Your task to perform on an android device: turn off location Image 0: 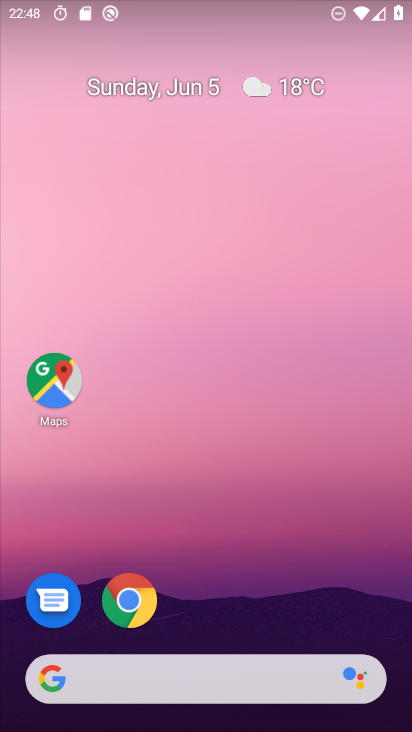
Step 0: drag from (274, 558) to (237, 112)
Your task to perform on an android device: turn off location Image 1: 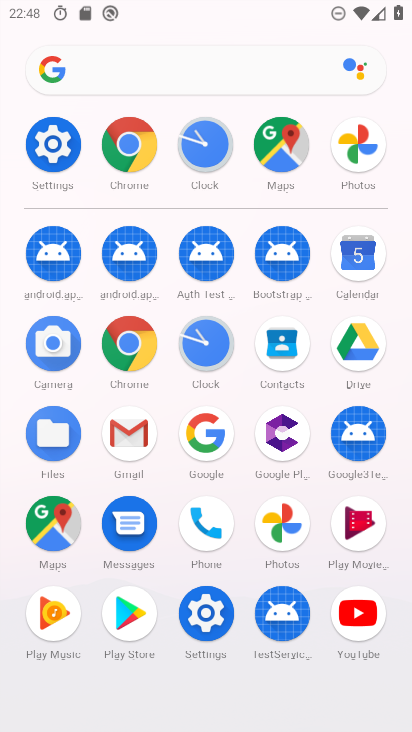
Step 1: click (50, 146)
Your task to perform on an android device: turn off location Image 2: 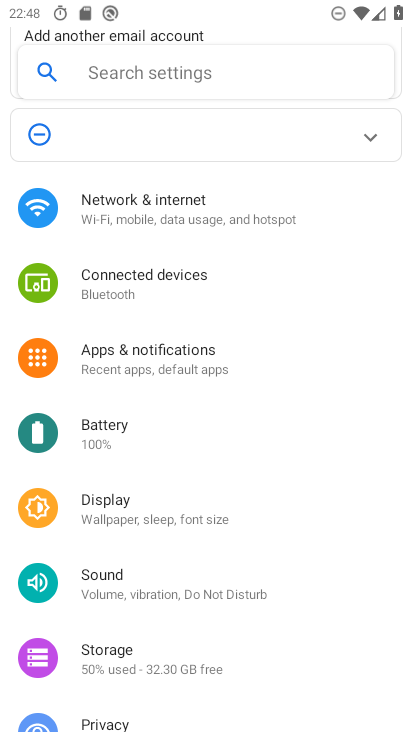
Step 2: drag from (210, 604) to (270, 148)
Your task to perform on an android device: turn off location Image 3: 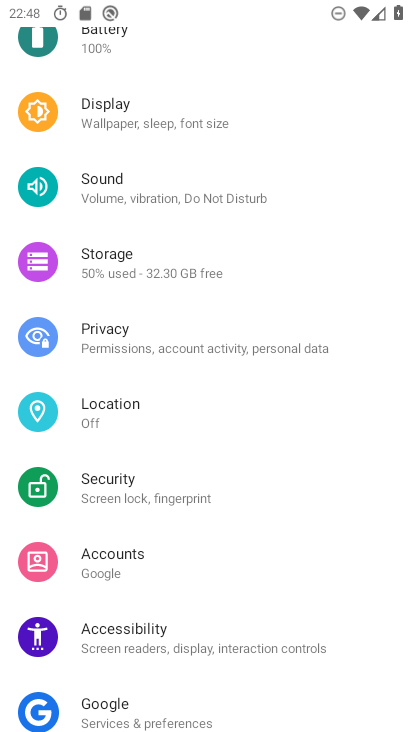
Step 3: click (187, 415)
Your task to perform on an android device: turn off location Image 4: 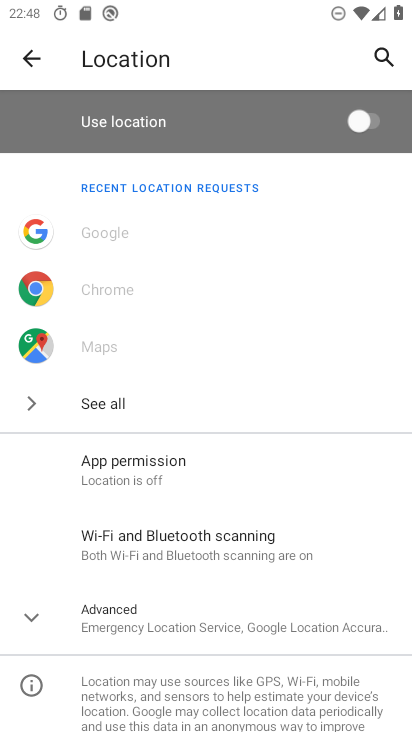
Step 4: task complete